Your task to perform on an android device: search for starred emails in the gmail app Image 0: 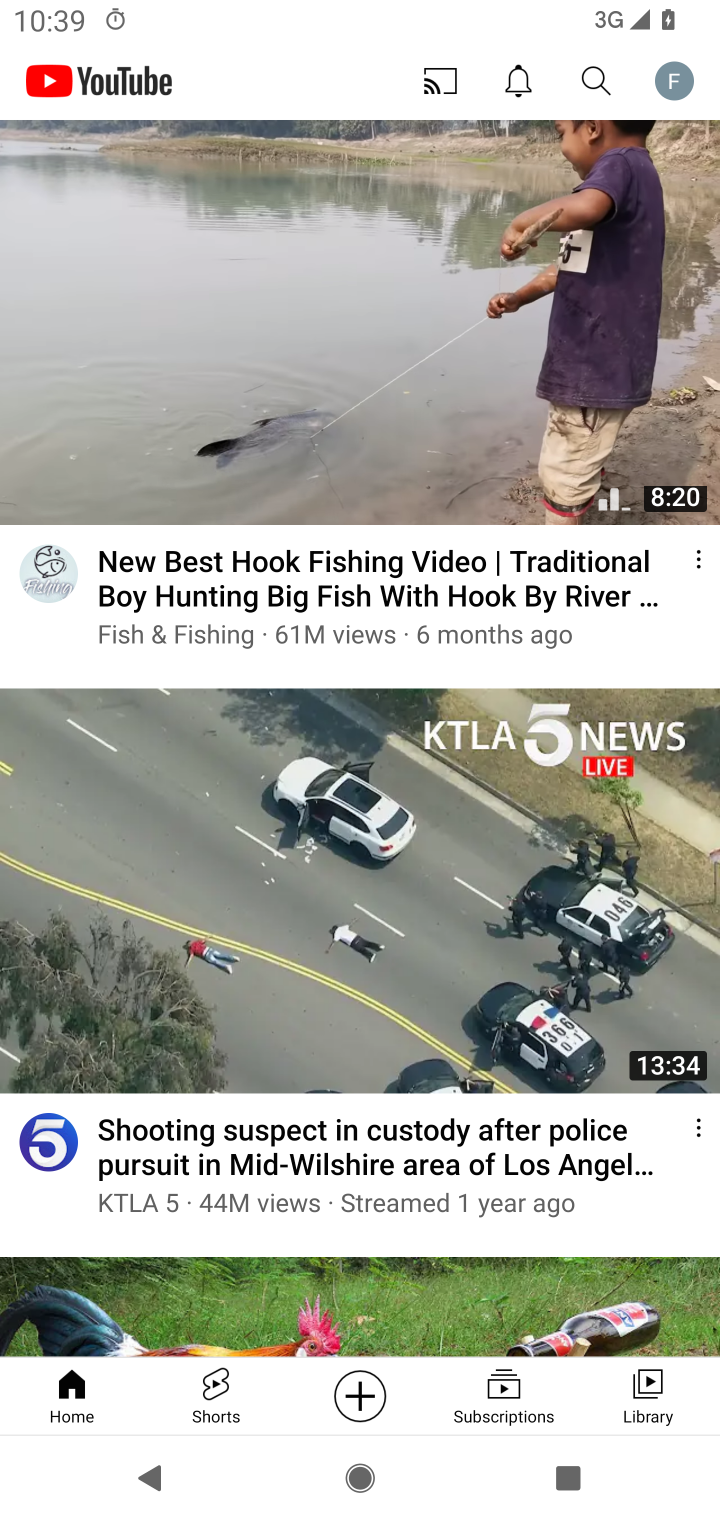
Step 0: press home button
Your task to perform on an android device: search for starred emails in the gmail app Image 1: 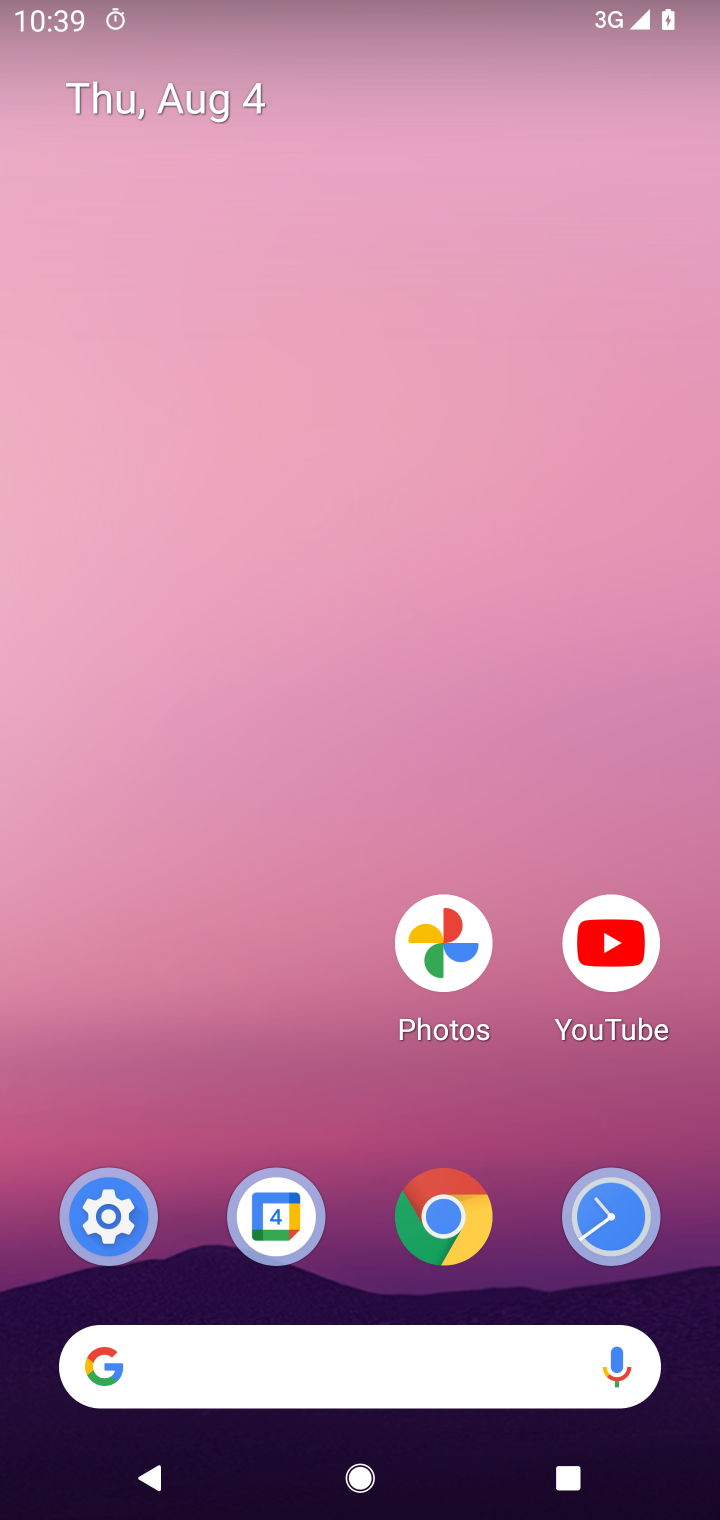
Step 1: drag from (377, 1311) to (380, 92)
Your task to perform on an android device: search for starred emails in the gmail app Image 2: 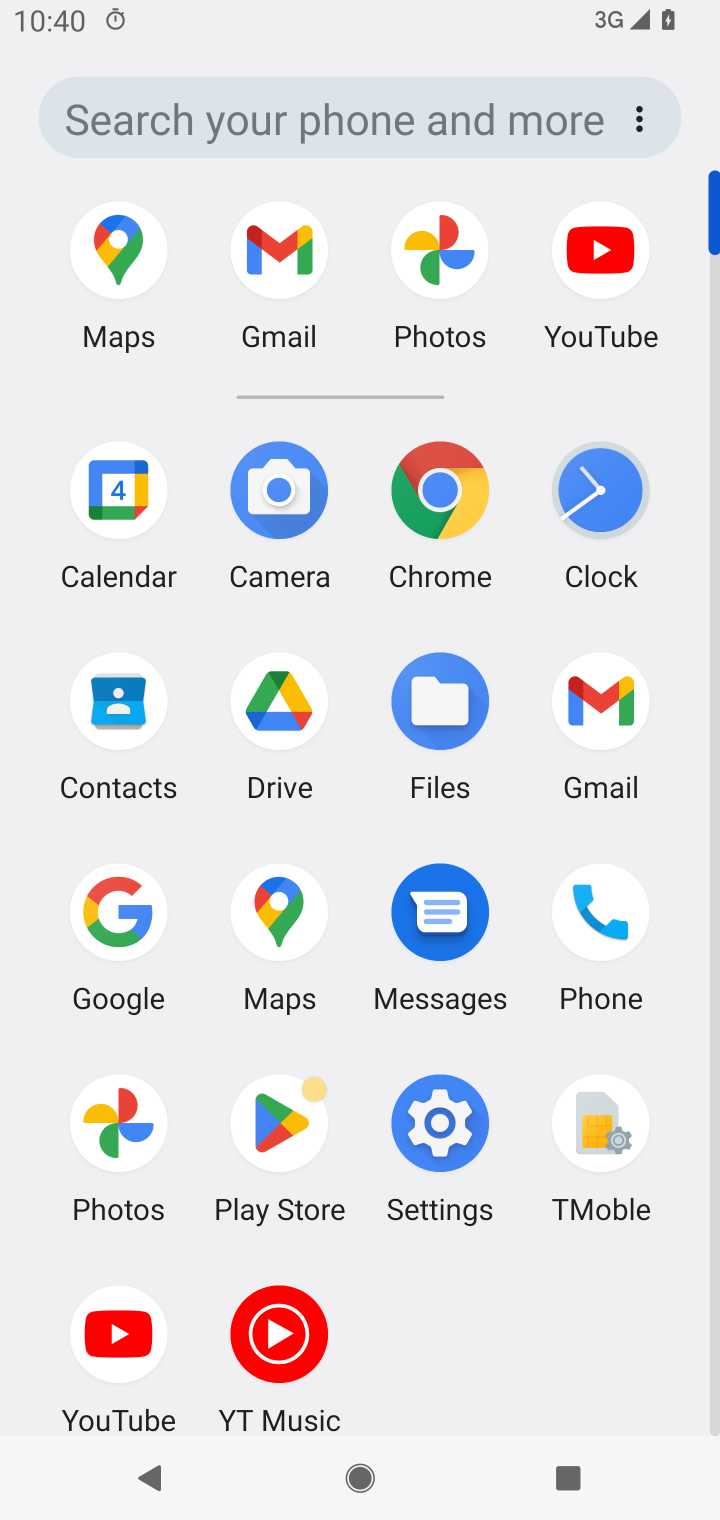
Step 2: click (597, 712)
Your task to perform on an android device: search for starred emails in the gmail app Image 3: 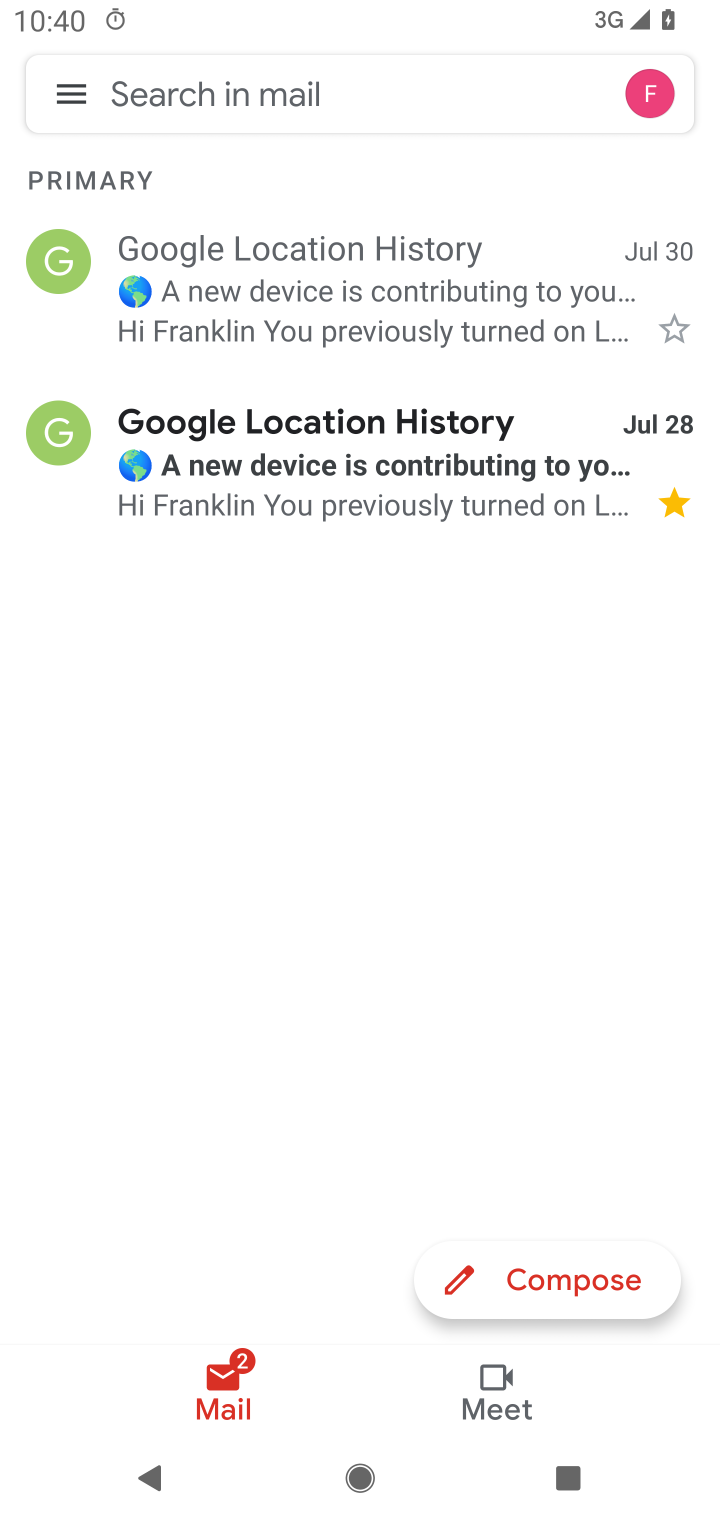
Step 3: click (73, 92)
Your task to perform on an android device: search for starred emails in the gmail app Image 4: 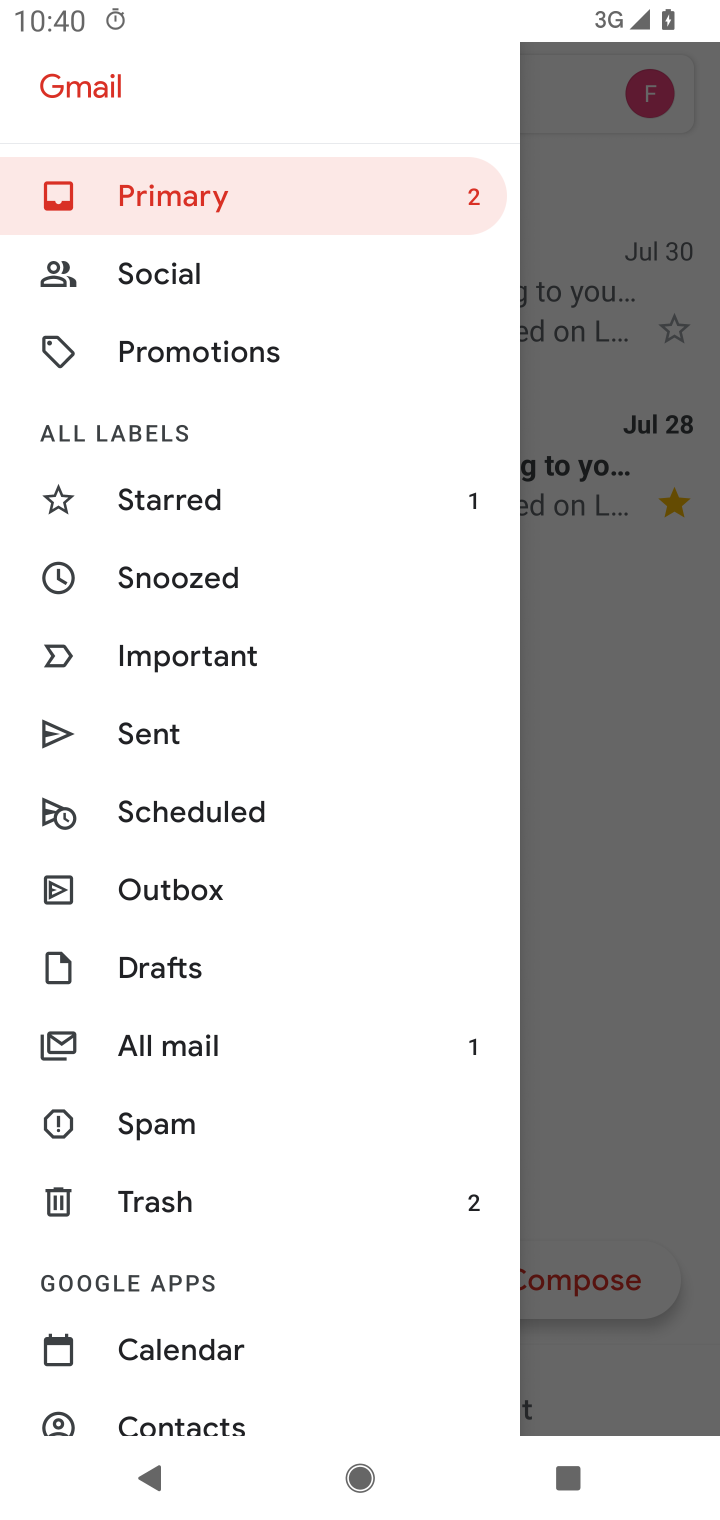
Step 4: click (168, 492)
Your task to perform on an android device: search for starred emails in the gmail app Image 5: 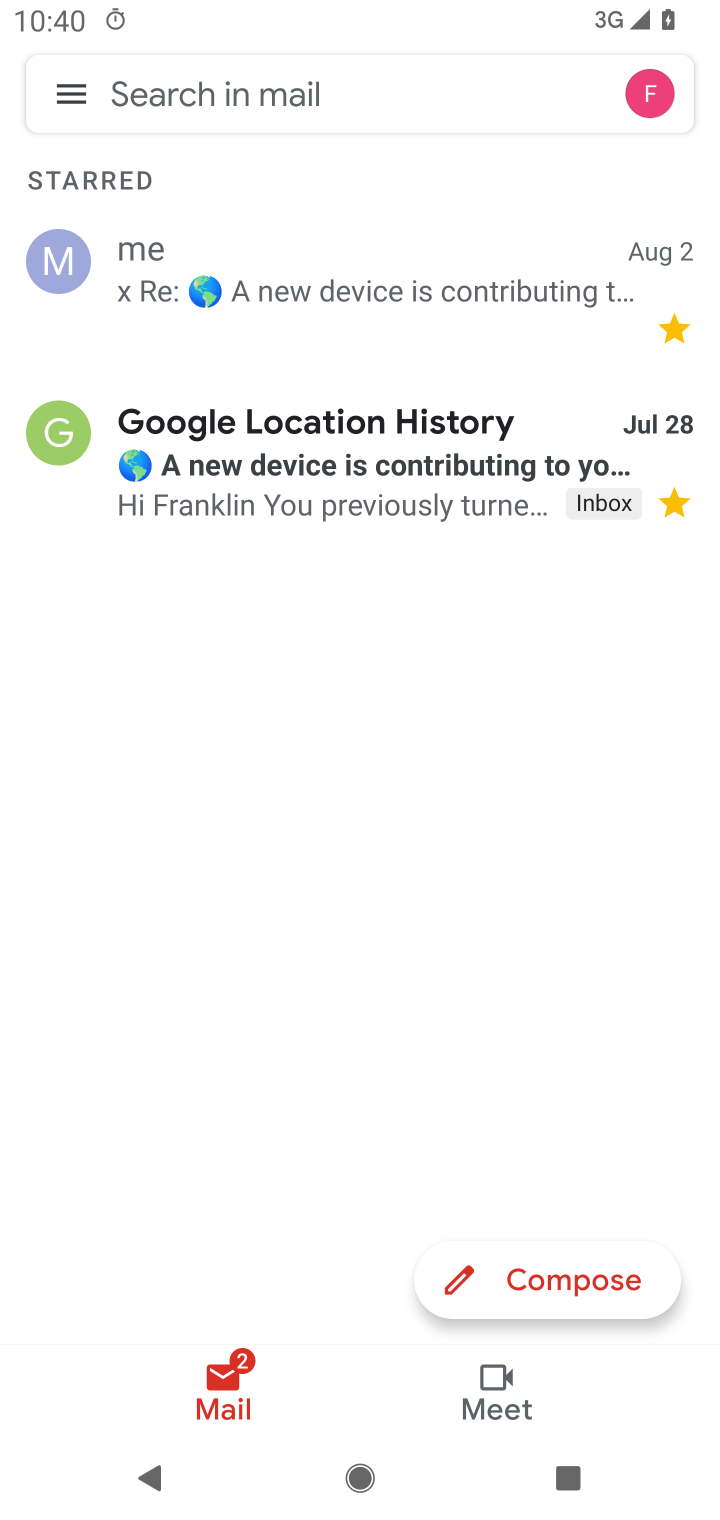
Step 5: task complete